Your task to perform on an android device: Go to eBay Image 0: 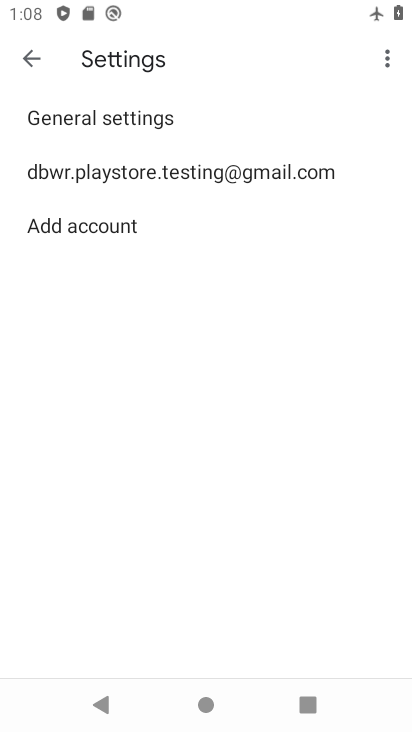
Step 0: press home button
Your task to perform on an android device: Go to eBay Image 1: 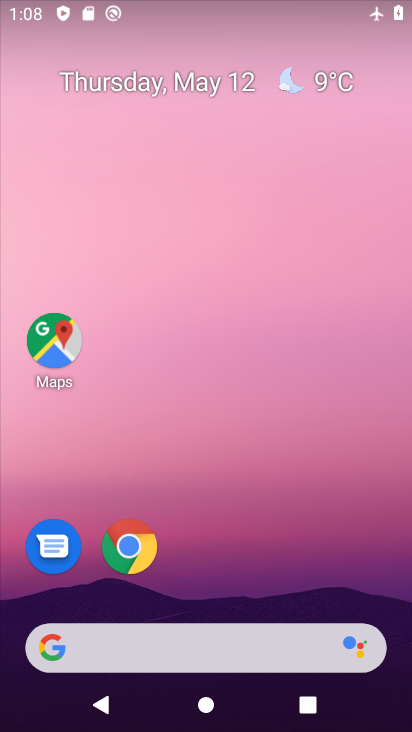
Step 1: drag from (252, 677) to (341, 327)
Your task to perform on an android device: Go to eBay Image 2: 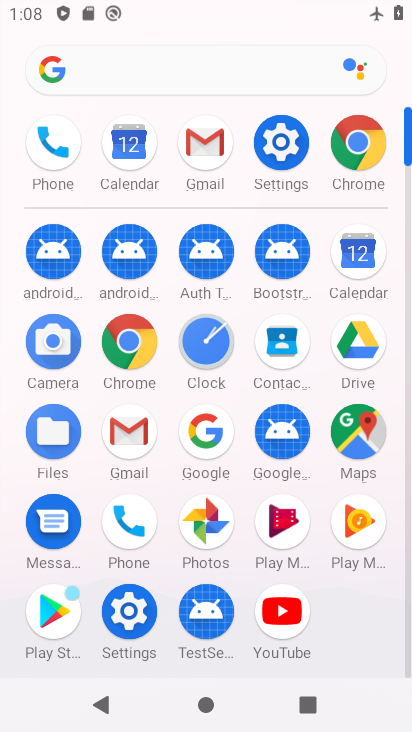
Step 2: click (366, 143)
Your task to perform on an android device: Go to eBay Image 3: 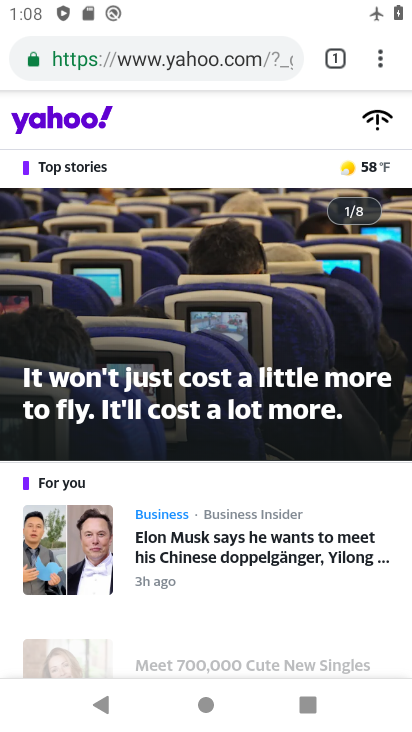
Step 3: click (233, 68)
Your task to perform on an android device: Go to eBay Image 4: 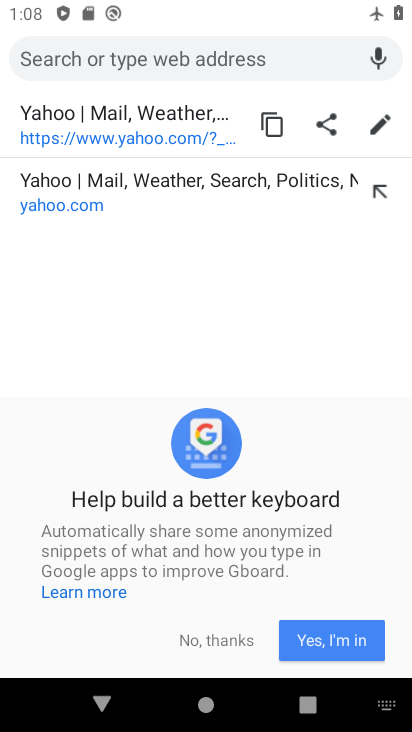
Step 4: click (224, 640)
Your task to perform on an android device: Go to eBay Image 5: 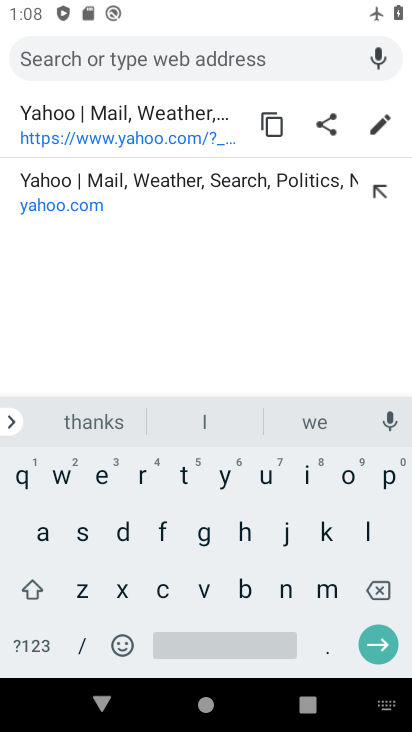
Step 5: click (91, 470)
Your task to perform on an android device: Go to eBay Image 6: 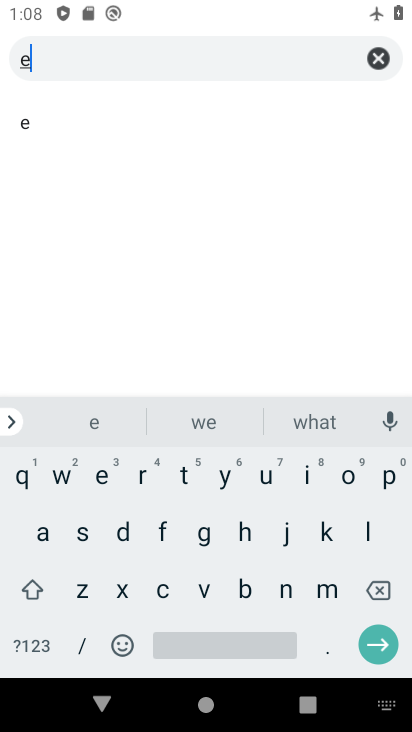
Step 6: click (247, 585)
Your task to perform on an android device: Go to eBay Image 7: 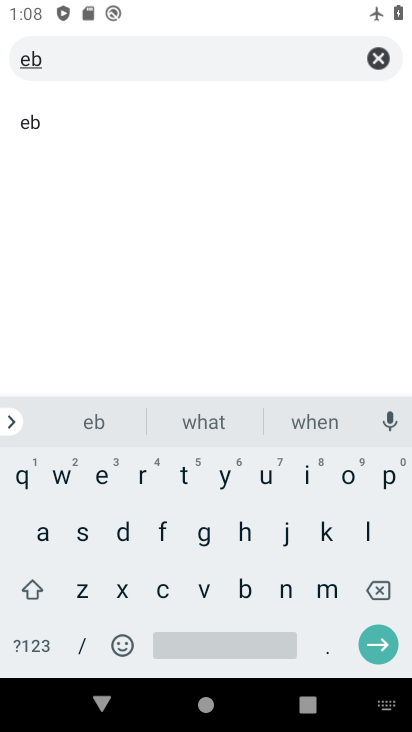
Step 7: click (42, 535)
Your task to perform on an android device: Go to eBay Image 8: 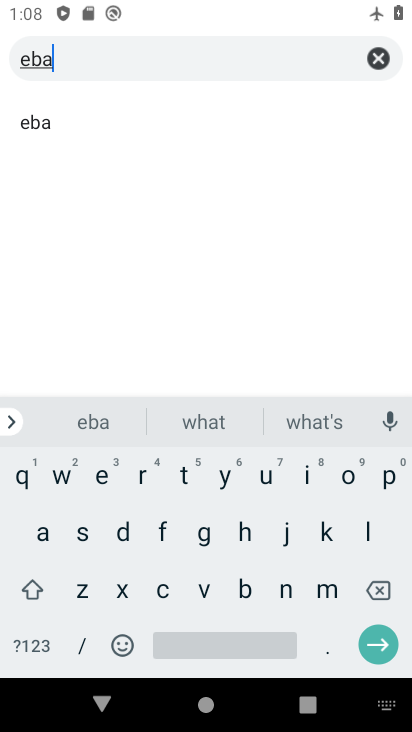
Step 8: click (220, 475)
Your task to perform on an android device: Go to eBay Image 9: 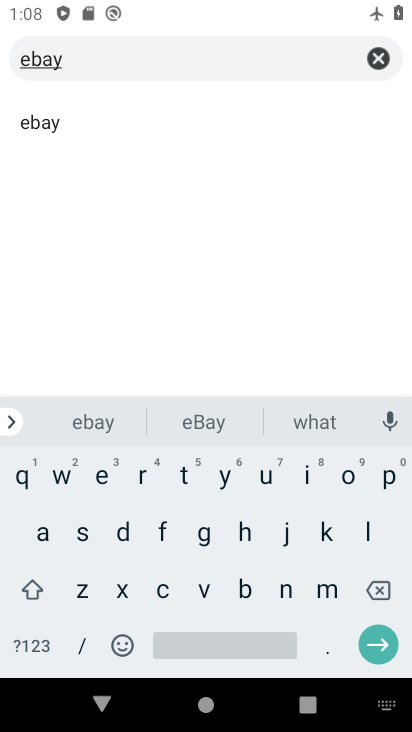
Step 9: click (120, 131)
Your task to perform on an android device: Go to eBay Image 10: 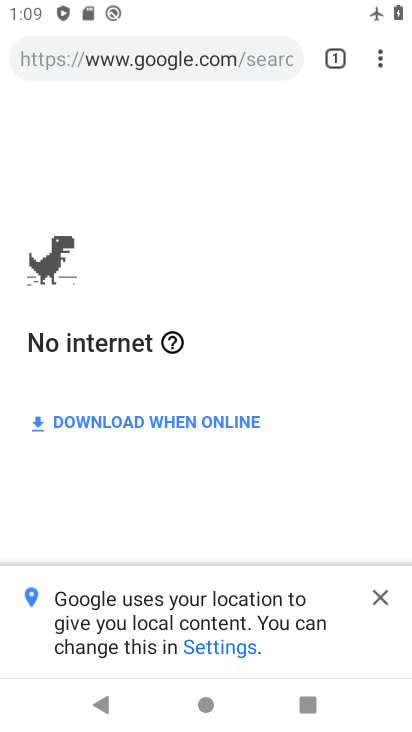
Step 10: press home button
Your task to perform on an android device: Go to eBay Image 11: 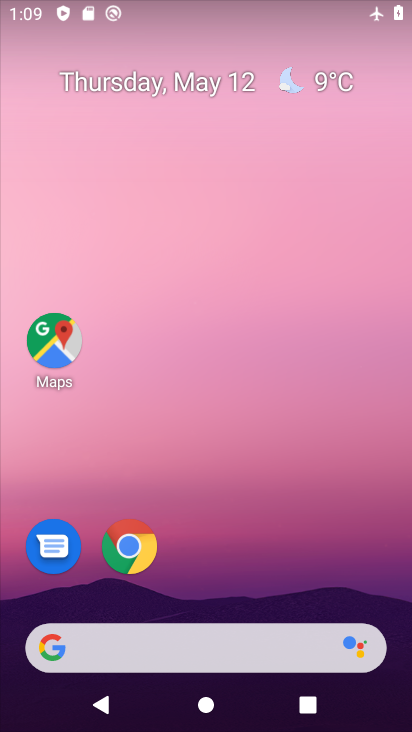
Step 11: drag from (259, 678) to (351, 222)
Your task to perform on an android device: Go to eBay Image 12: 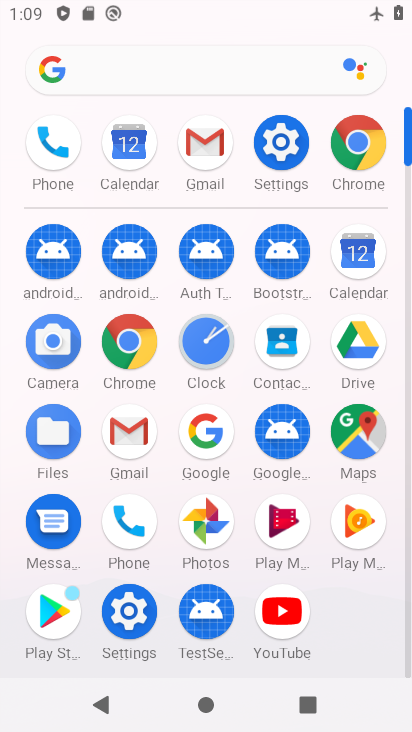
Step 12: click (284, 151)
Your task to perform on an android device: Go to eBay Image 13: 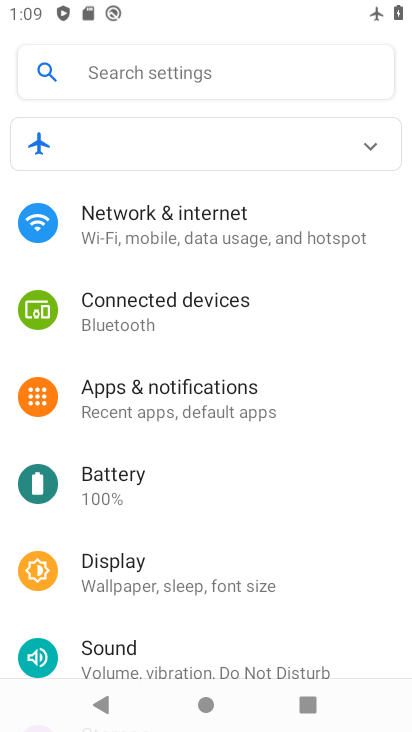
Step 13: click (376, 139)
Your task to perform on an android device: Go to eBay Image 14: 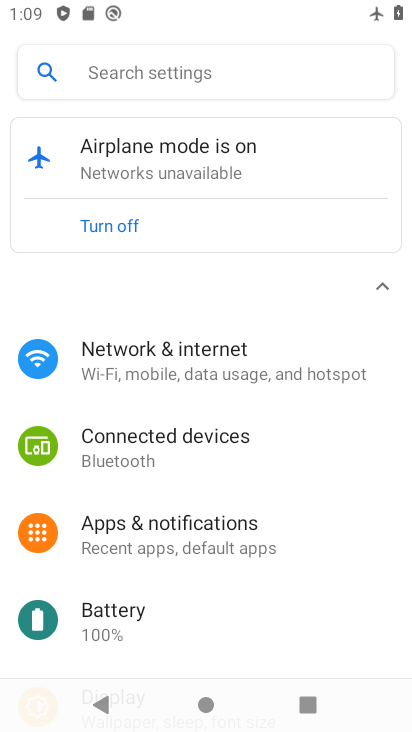
Step 14: click (122, 226)
Your task to perform on an android device: Go to eBay Image 15: 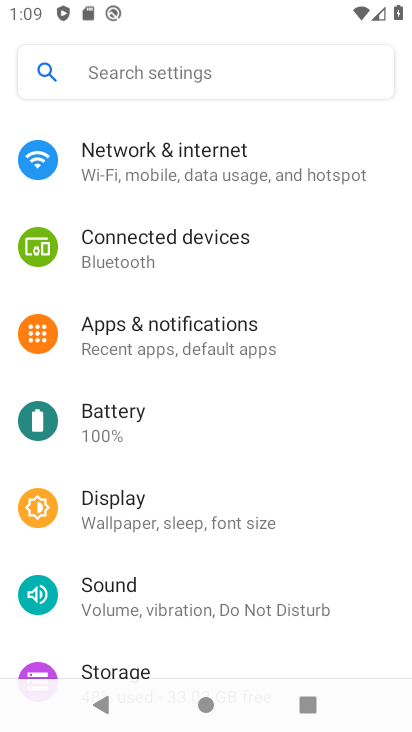
Step 15: press home button
Your task to perform on an android device: Go to eBay Image 16: 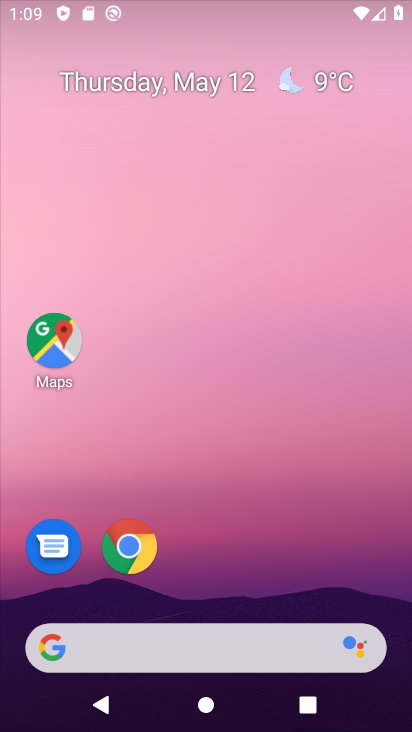
Step 16: drag from (239, 677) to (263, 250)
Your task to perform on an android device: Go to eBay Image 17: 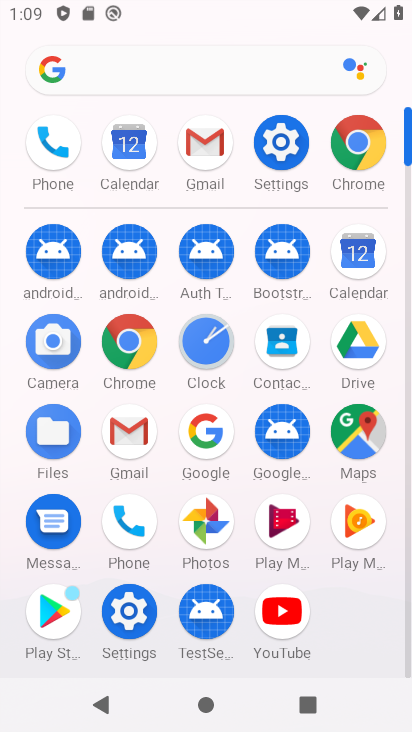
Step 17: click (344, 172)
Your task to perform on an android device: Go to eBay Image 18: 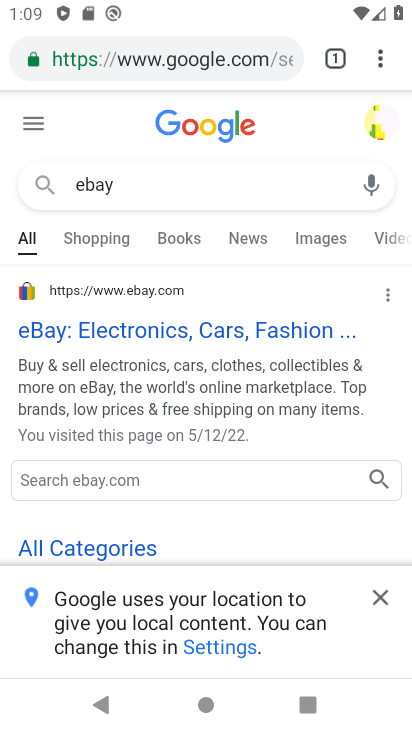
Step 18: click (147, 338)
Your task to perform on an android device: Go to eBay Image 19: 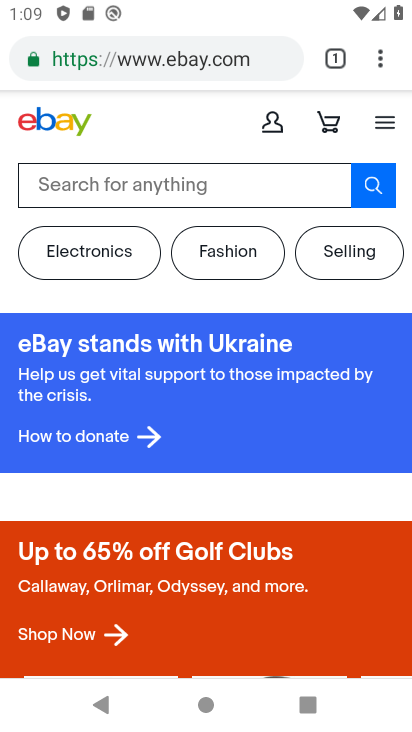
Step 19: task complete